Your task to perform on an android device: Open Chrome and go to settings Image 0: 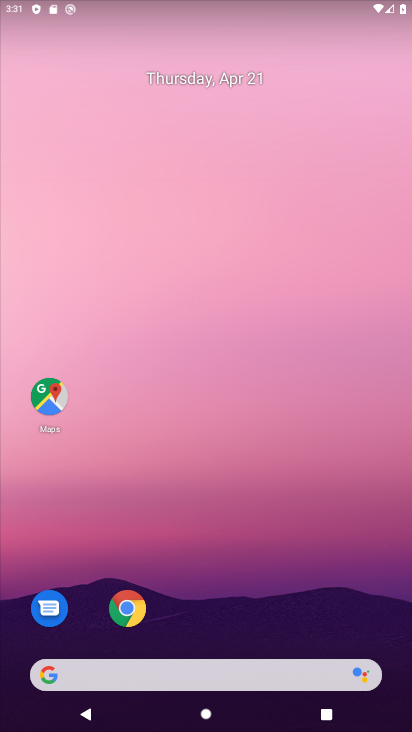
Step 0: click (118, 622)
Your task to perform on an android device: Open Chrome and go to settings Image 1: 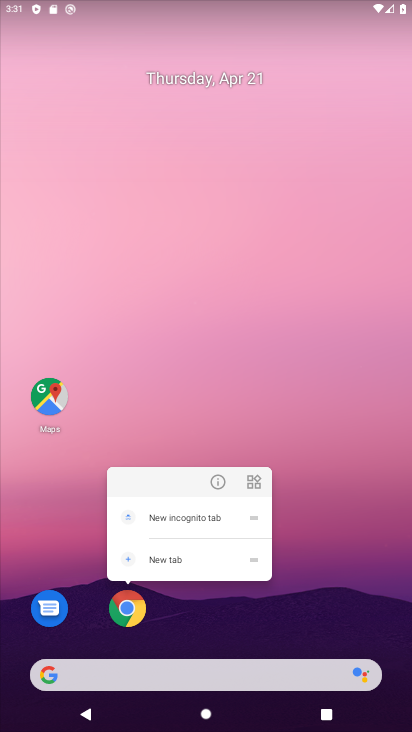
Step 1: click (120, 616)
Your task to perform on an android device: Open Chrome and go to settings Image 2: 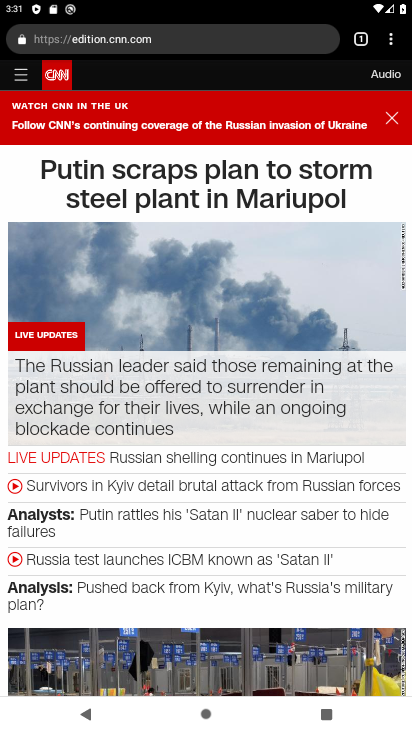
Step 2: task complete